Your task to perform on an android device: open app "Viber Messenger" (install if not already installed) and enter user name: "blameless@icloud.com" and password: "Yoknapatawpha" Image 0: 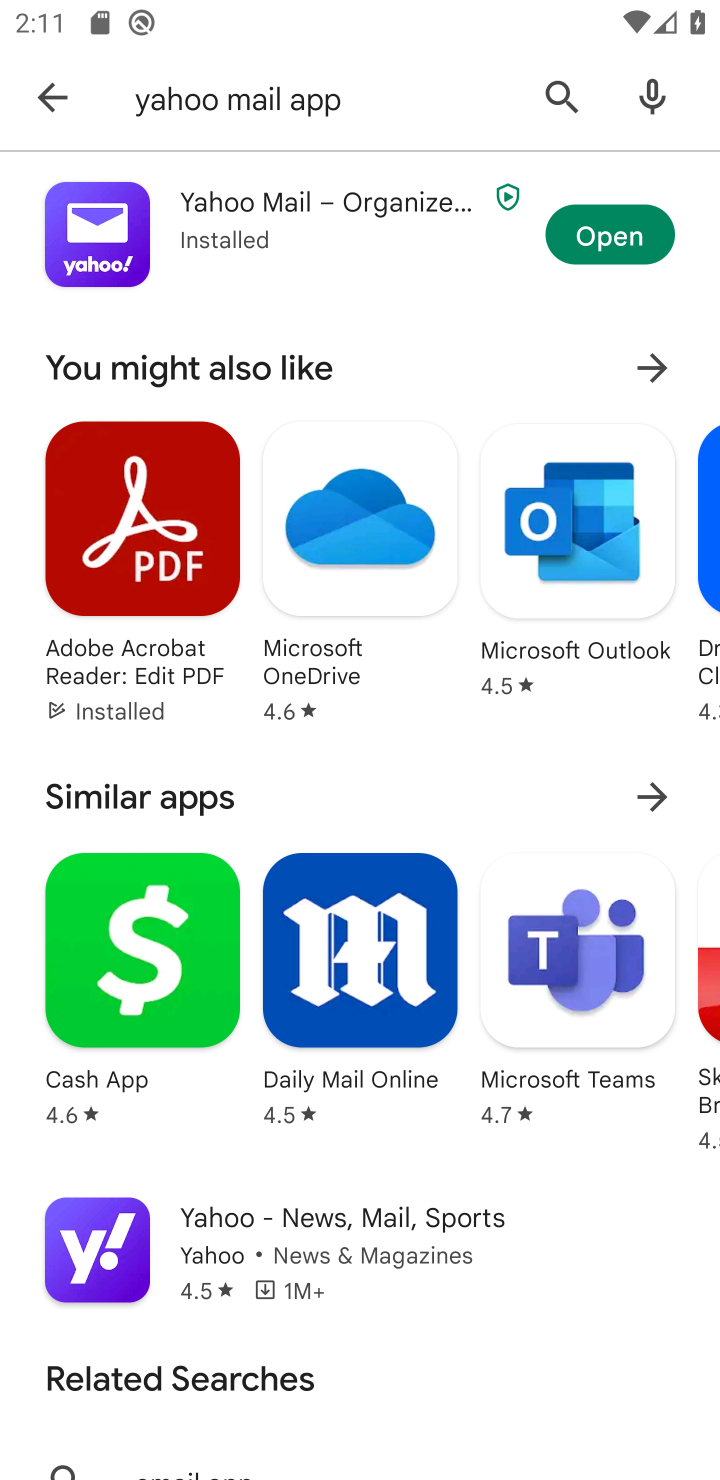
Step 0: click (81, 88)
Your task to perform on an android device: open app "Viber Messenger" (install if not already installed) and enter user name: "blameless@icloud.com" and password: "Yoknapatawpha" Image 1: 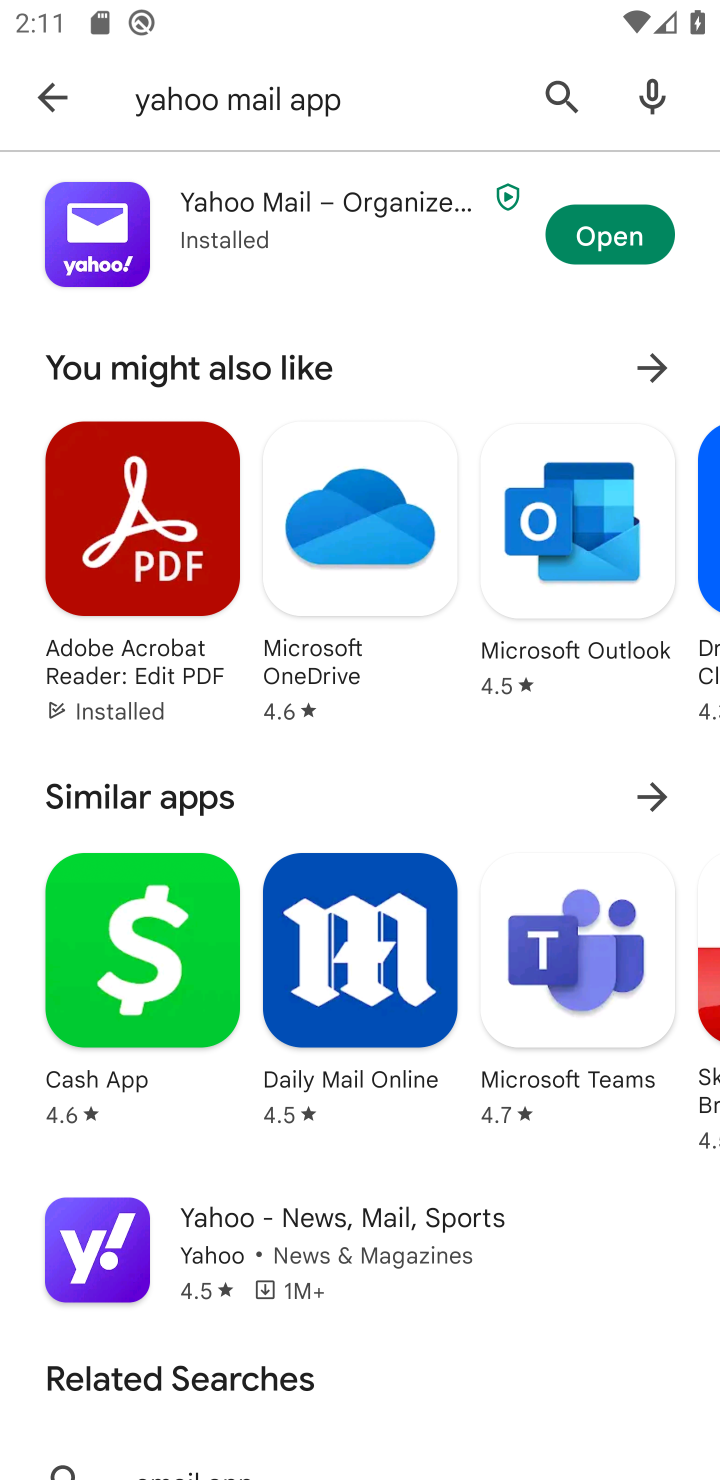
Step 1: click (542, 89)
Your task to perform on an android device: open app "Viber Messenger" (install if not already installed) and enter user name: "blameless@icloud.com" and password: "Yoknapatawpha" Image 2: 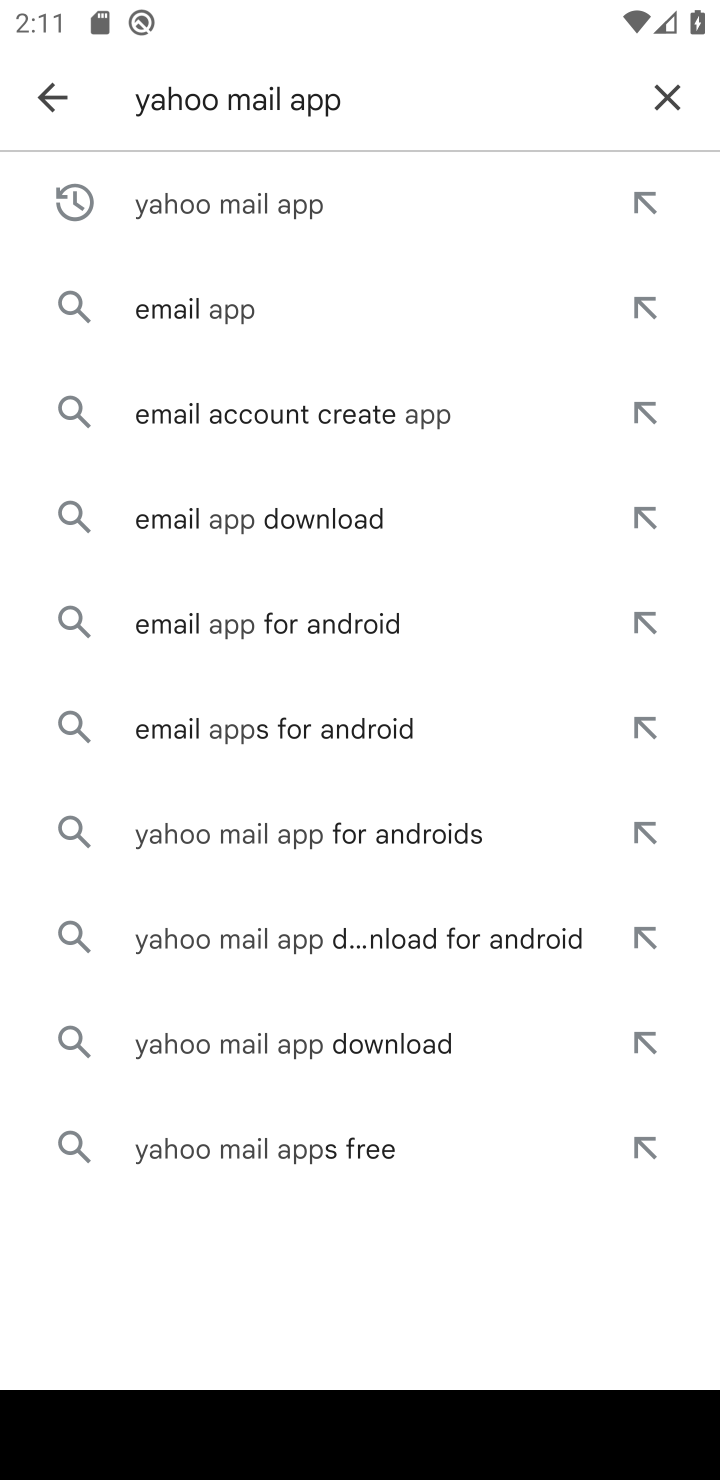
Step 2: click (689, 90)
Your task to perform on an android device: open app "Viber Messenger" (install if not already installed) and enter user name: "blameless@icloud.com" and password: "Yoknapatawpha" Image 3: 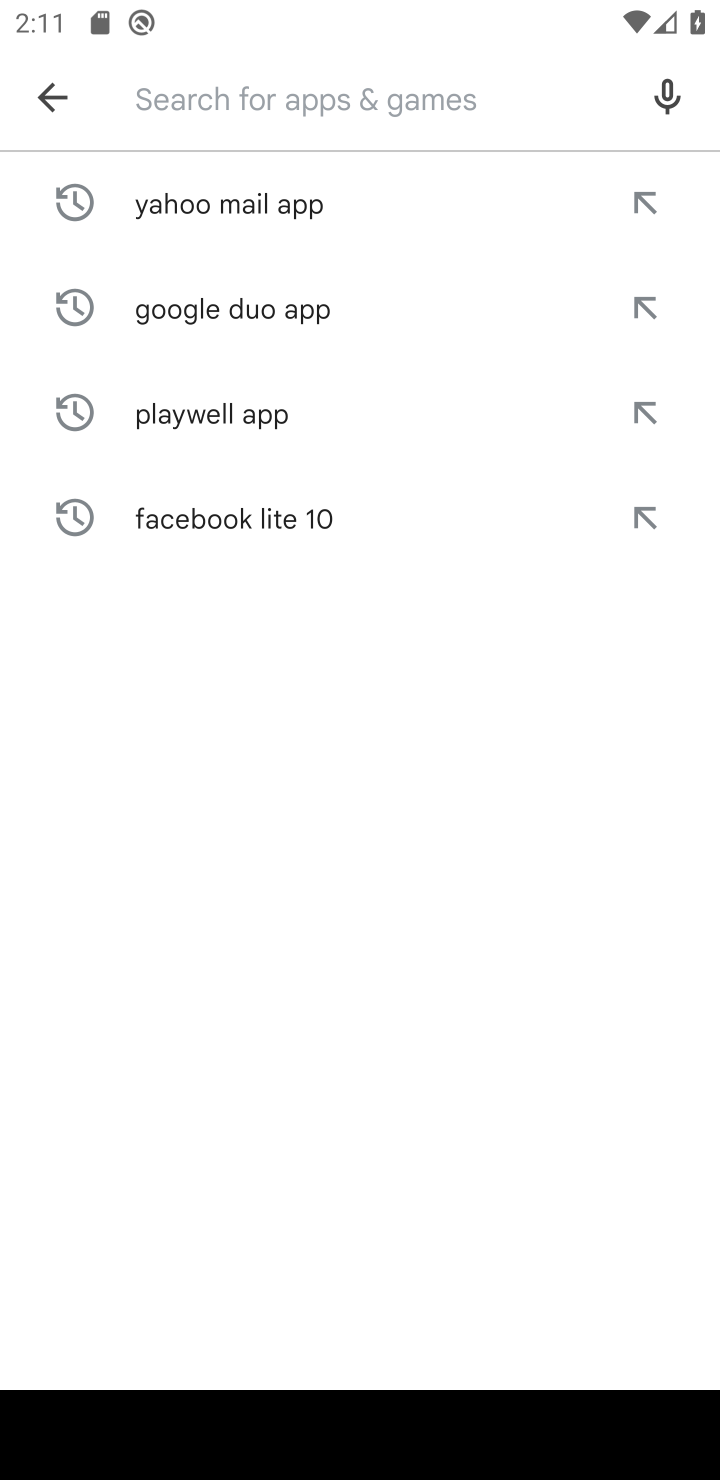
Step 3: click (277, 90)
Your task to perform on an android device: open app "Viber Messenger" (install if not already installed) and enter user name: "blameless@icloud.com" and password: "Yoknapatawpha" Image 4: 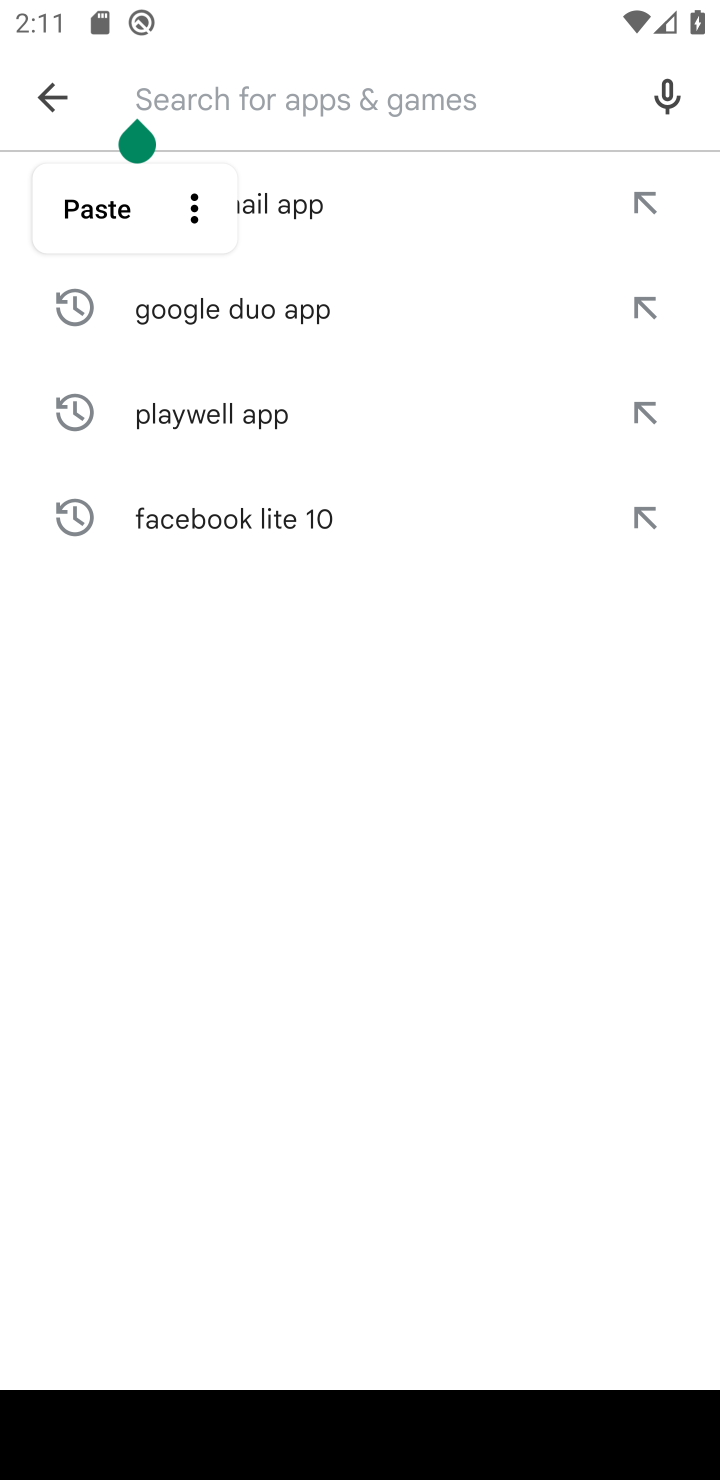
Step 4: type "Viber Messenger "
Your task to perform on an android device: open app "Viber Messenger" (install if not already installed) and enter user name: "blameless@icloud.com" and password: "Yoknapatawpha" Image 5: 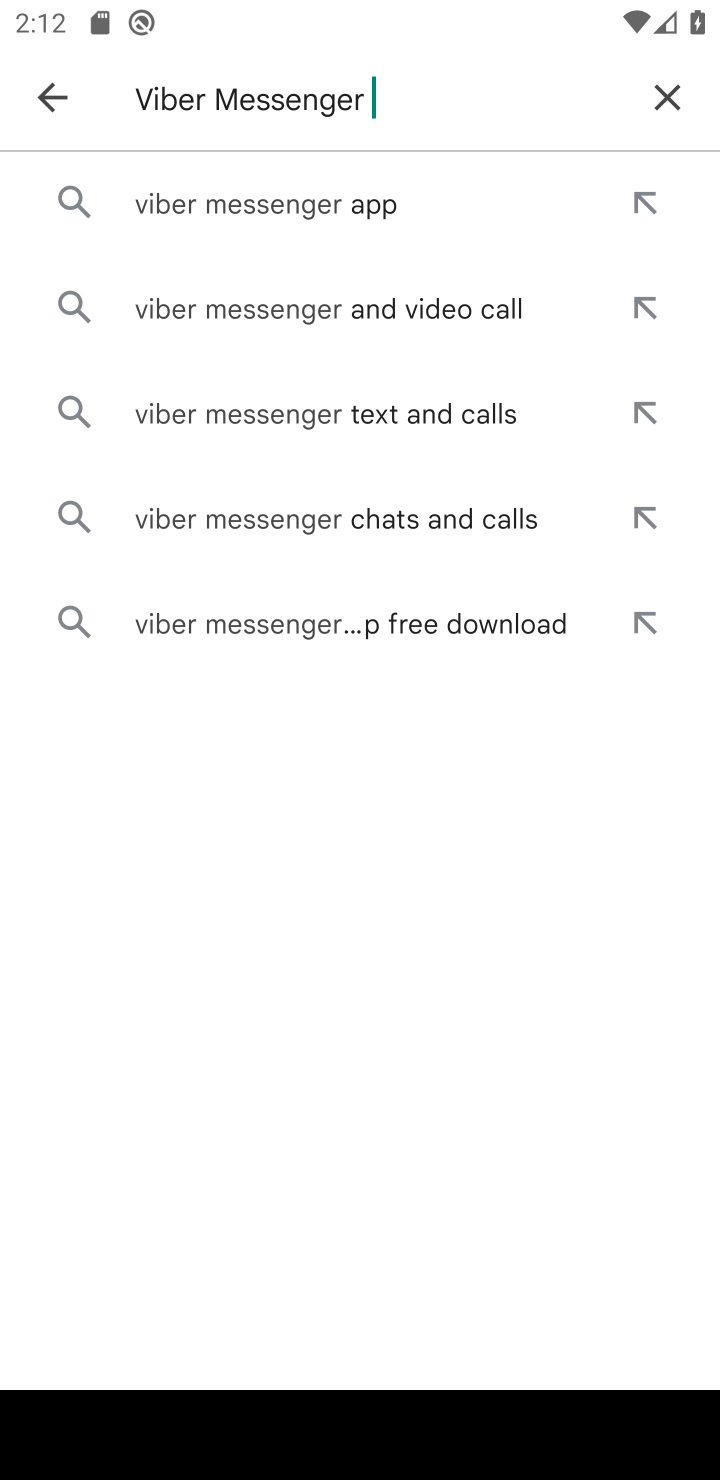
Step 5: click (272, 204)
Your task to perform on an android device: open app "Viber Messenger" (install if not already installed) and enter user name: "blameless@icloud.com" and password: "Yoknapatawpha" Image 6: 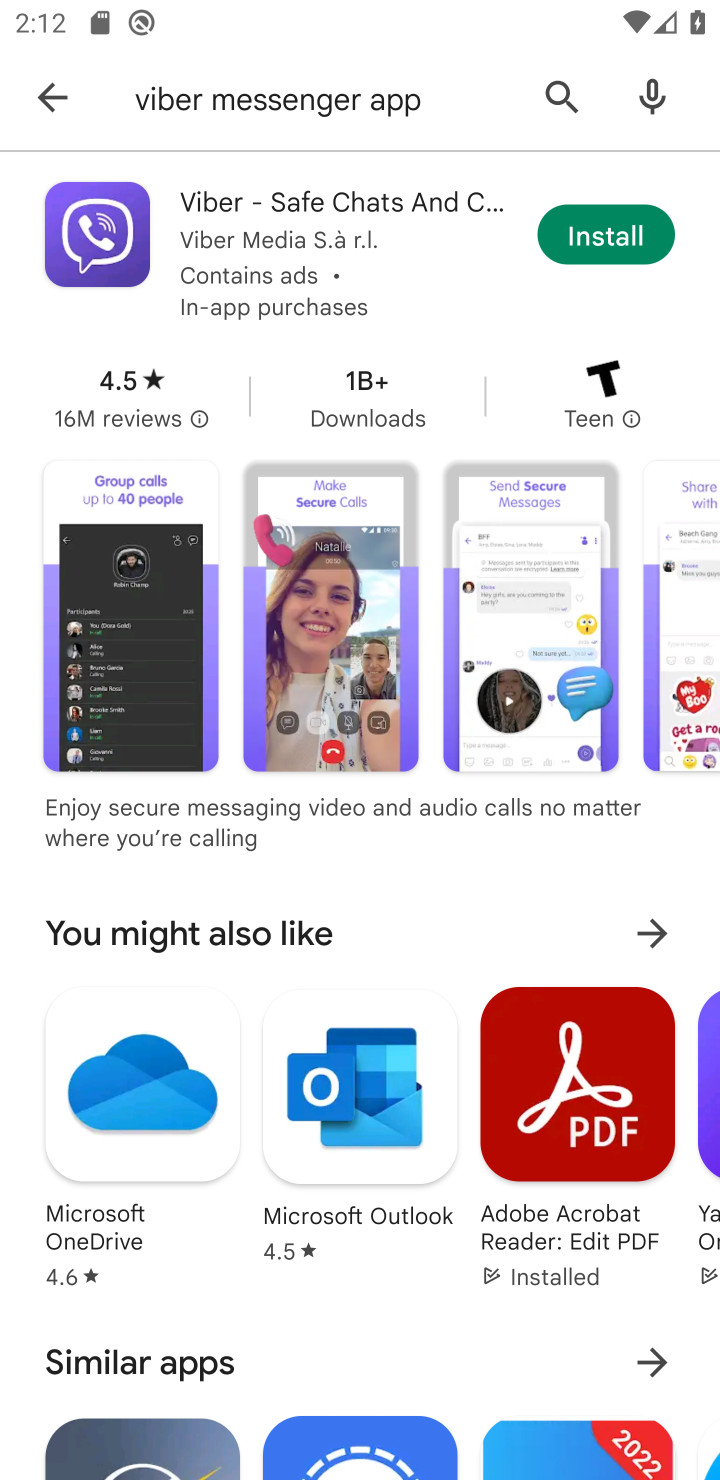
Step 6: click (564, 229)
Your task to perform on an android device: open app "Viber Messenger" (install if not already installed) and enter user name: "blameless@icloud.com" and password: "Yoknapatawpha" Image 7: 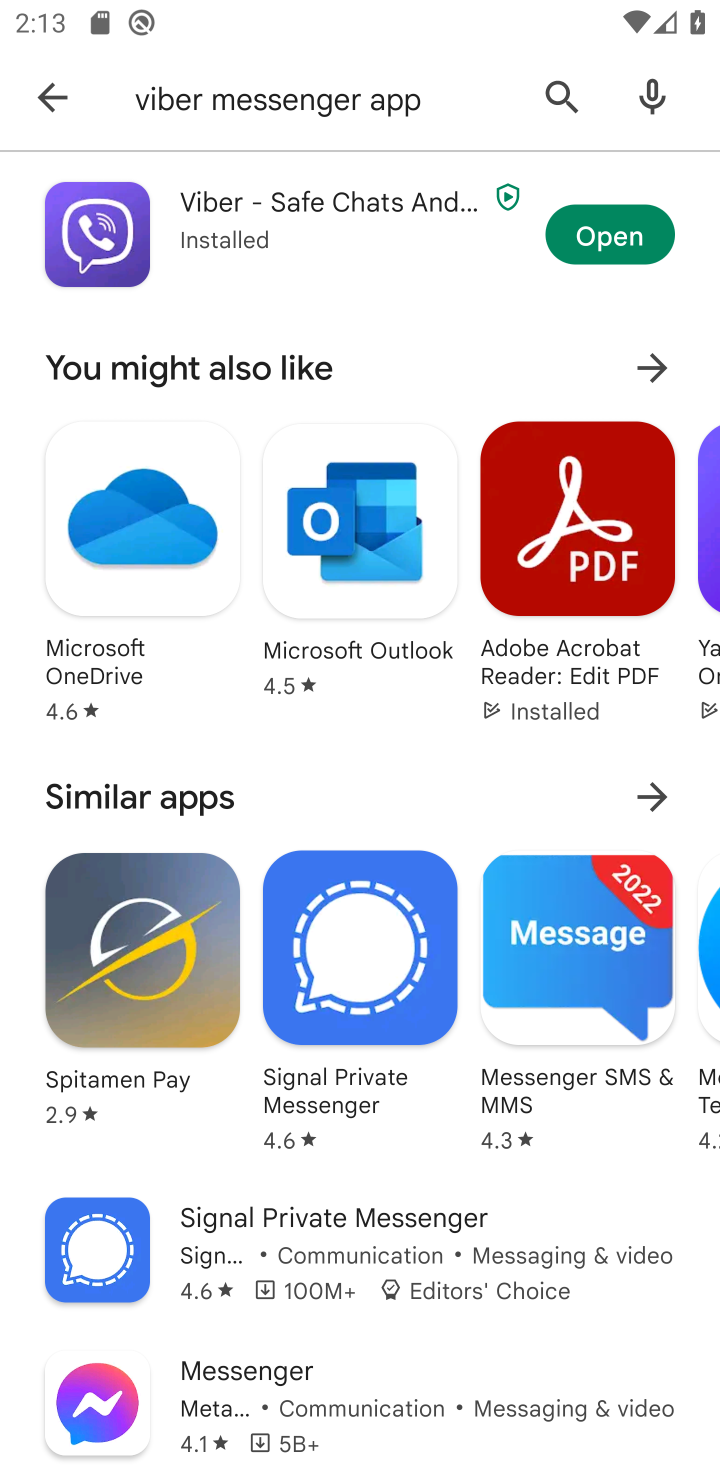
Step 7: click (590, 225)
Your task to perform on an android device: open app "Viber Messenger" (install if not already installed) and enter user name: "blameless@icloud.com" and password: "Yoknapatawpha" Image 8: 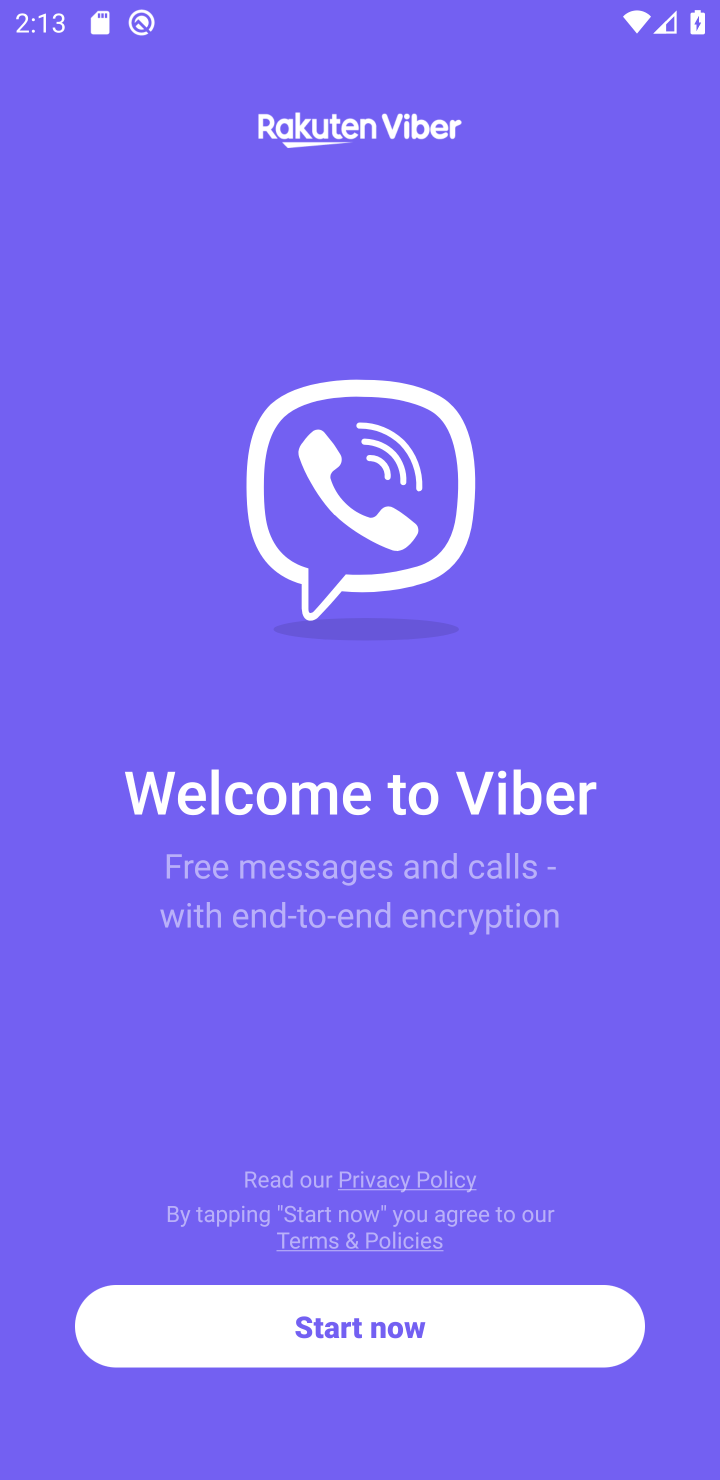
Step 8: task complete